Your task to perform on an android device: Check the weather Image 0: 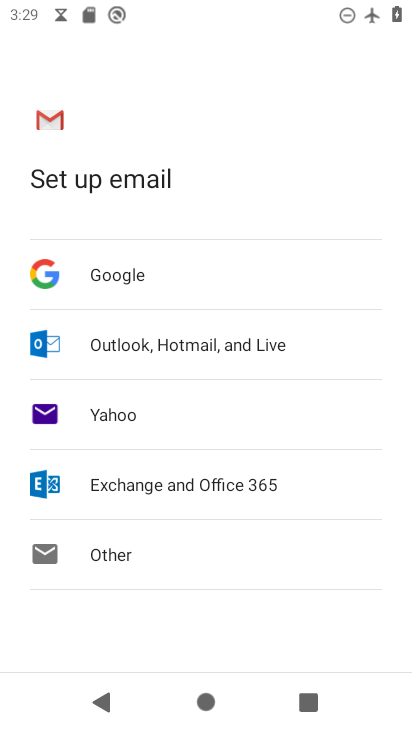
Step 0: press home button
Your task to perform on an android device: Check the weather Image 1: 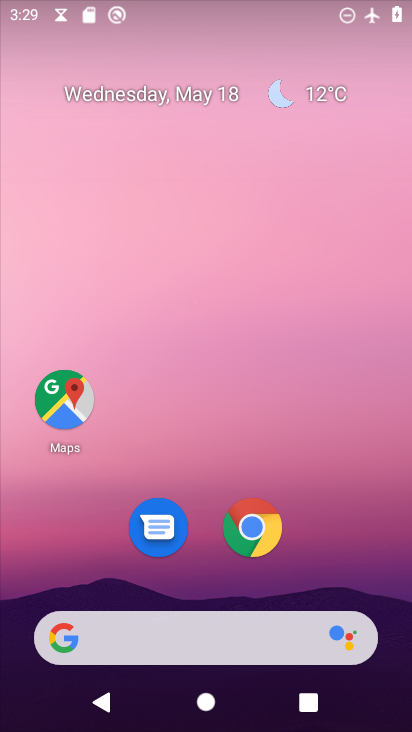
Step 1: click (299, 84)
Your task to perform on an android device: Check the weather Image 2: 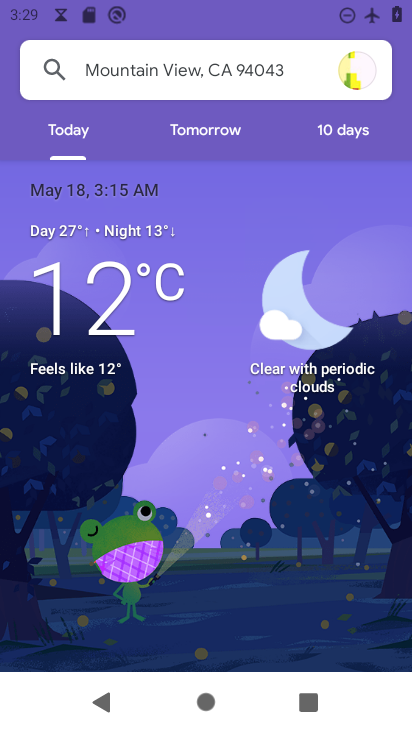
Step 2: task complete